Your task to perform on an android device: Go to Google maps Image 0: 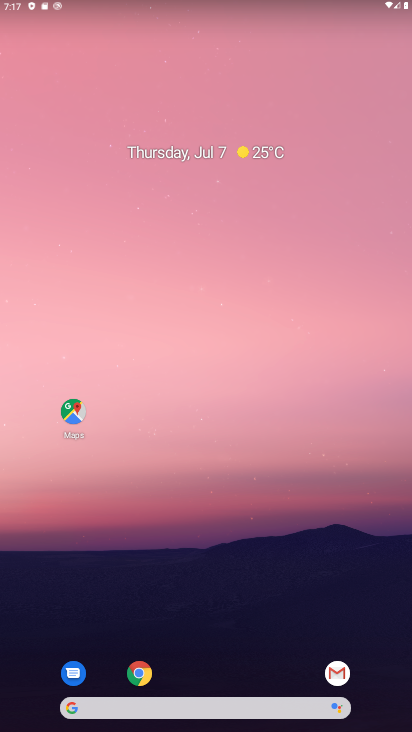
Step 0: click (80, 410)
Your task to perform on an android device: Go to Google maps Image 1: 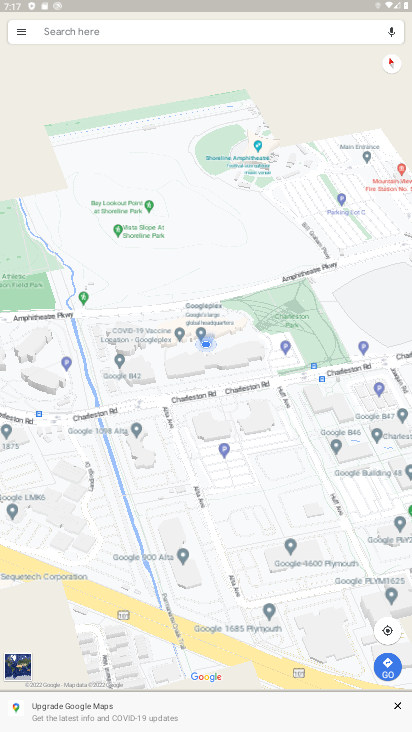
Step 1: click (386, 635)
Your task to perform on an android device: Go to Google maps Image 2: 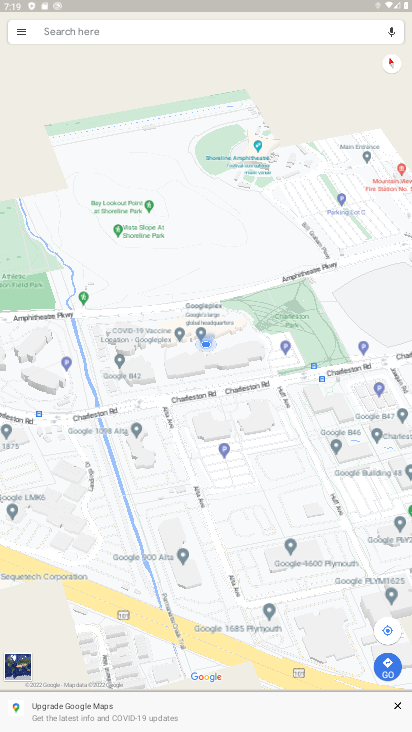
Step 2: task complete